Your task to perform on an android device: Set the phone to "Do not disturb". Image 0: 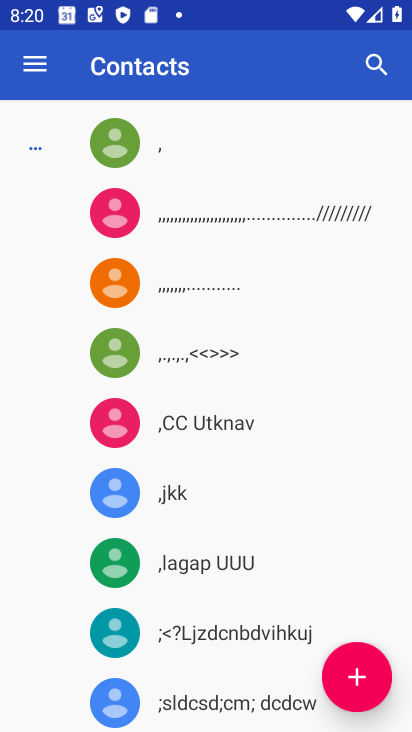
Step 0: press home button
Your task to perform on an android device: Set the phone to "Do not disturb". Image 1: 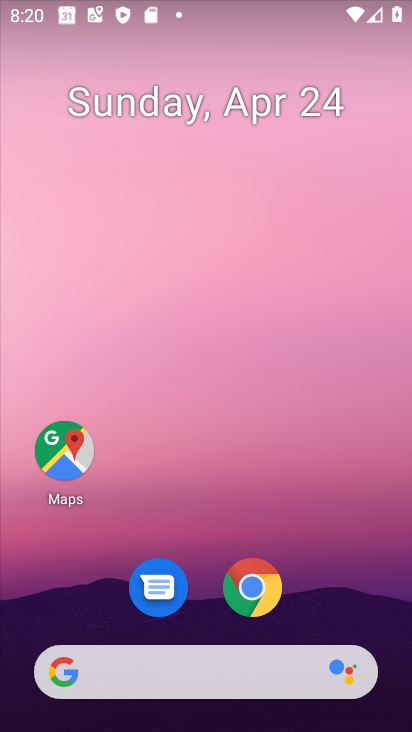
Step 1: drag from (302, 607) to (380, 144)
Your task to perform on an android device: Set the phone to "Do not disturb". Image 2: 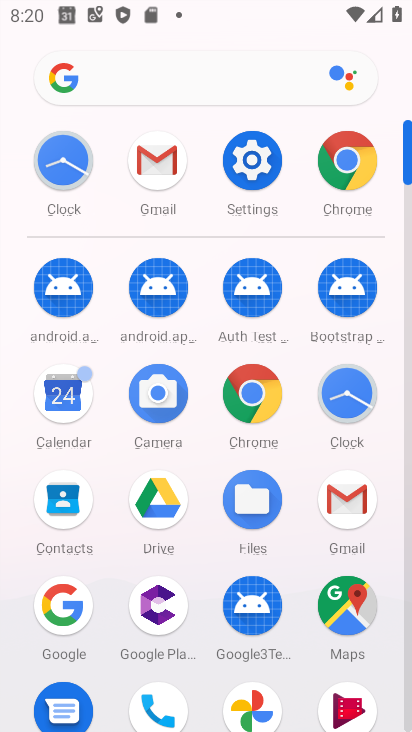
Step 2: click (256, 177)
Your task to perform on an android device: Set the phone to "Do not disturb". Image 3: 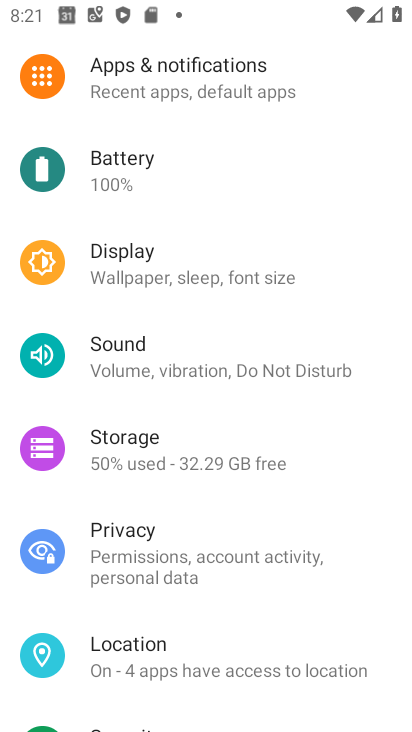
Step 3: click (149, 369)
Your task to perform on an android device: Set the phone to "Do not disturb". Image 4: 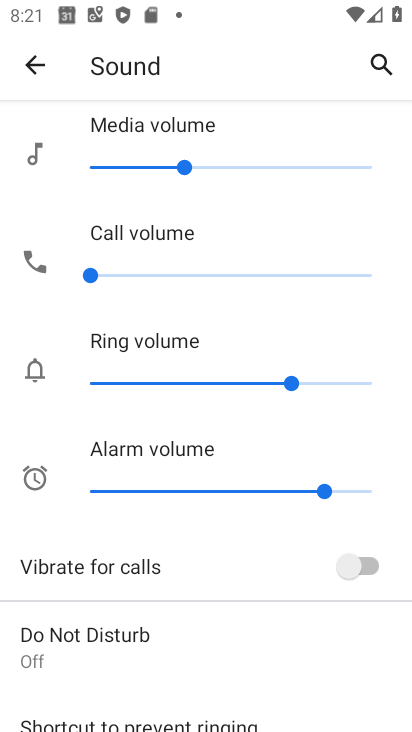
Step 4: click (115, 649)
Your task to perform on an android device: Set the phone to "Do not disturb". Image 5: 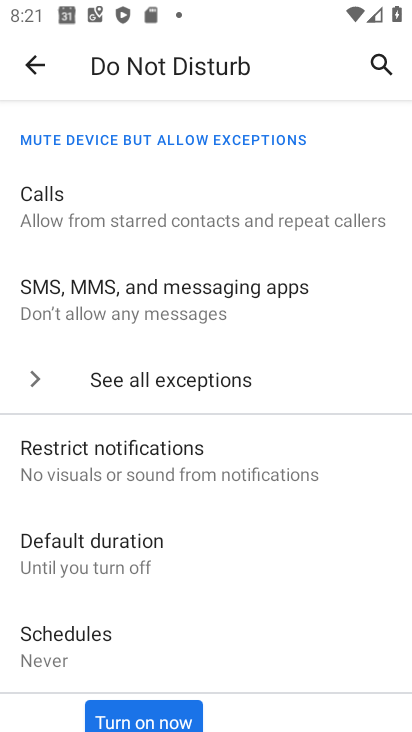
Step 5: drag from (214, 645) to (282, 385)
Your task to perform on an android device: Set the phone to "Do not disturb". Image 6: 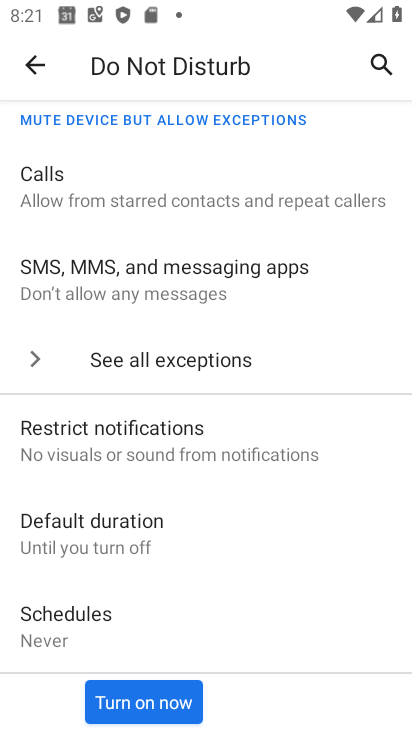
Step 6: click (171, 697)
Your task to perform on an android device: Set the phone to "Do not disturb". Image 7: 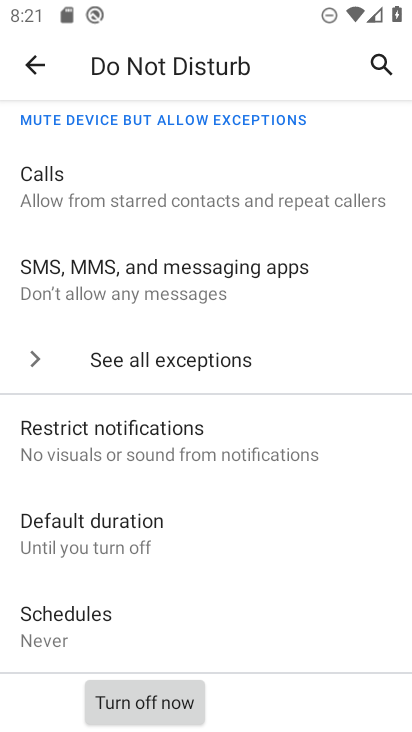
Step 7: task complete